Your task to perform on an android device: Open Google Image 0: 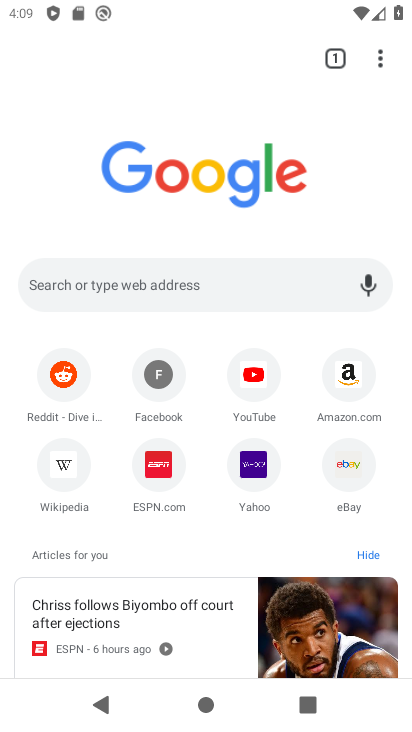
Step 0: press home button
Your task to perform on an android device: Open Google Image 1: 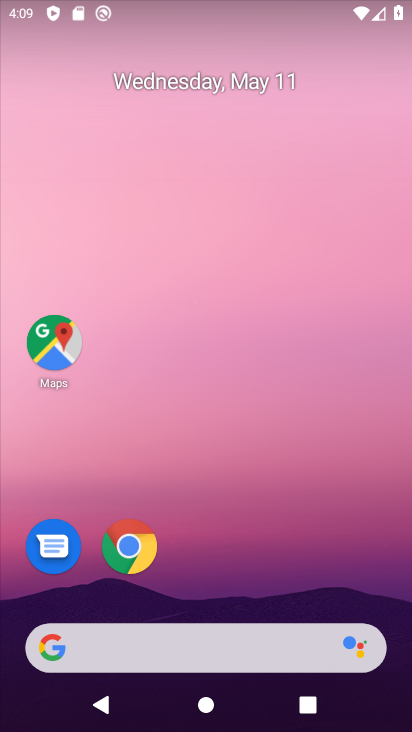
Step 1: drag from (207, 615) to (219, 174)
Your task to perform on an android device: Open Google Image 2: 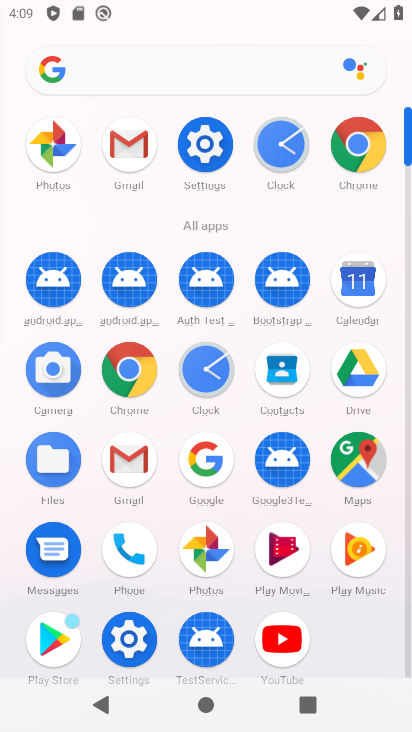
Step 2: click (196, 458)
Your task to perform on an android device: Open Google Image 3: 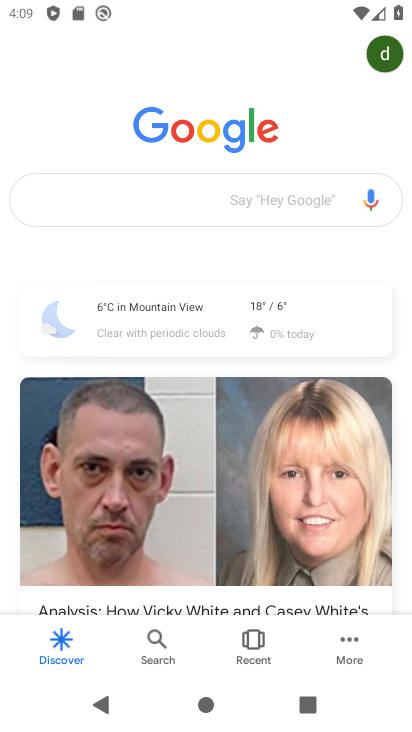
Step 3: task complete